Your task to perform on an android device: visit the assistant section in the google photos Image 0: 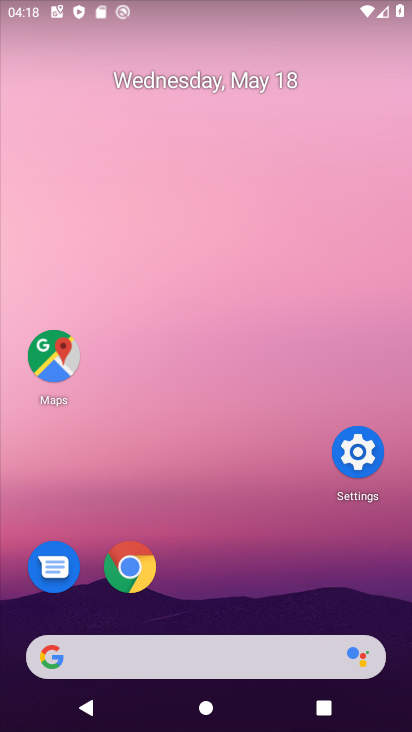
Step 0: drag from (226, 486) to (328, 76)
Your task to perform on an android device: visit the assistant section in the google photos Image 1: 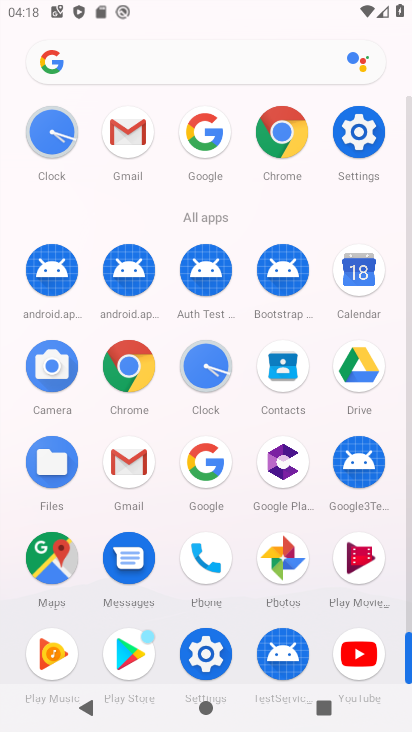
Step 1: click (274, 566)
Your task to perform on an android device: visit the assistant section in the google photos Image 2: 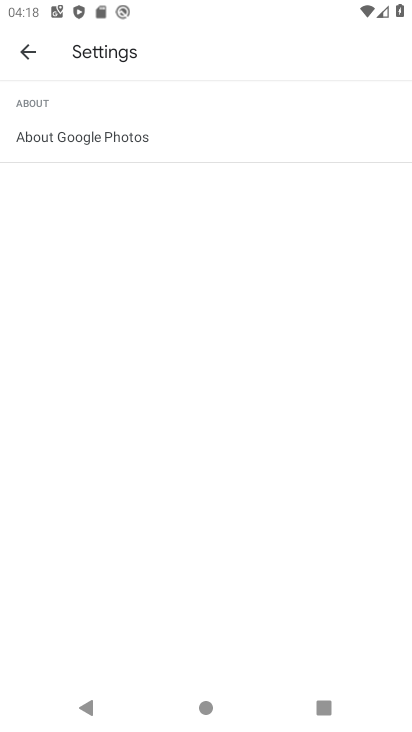
Step 2: click (30, 49)
Your task to perform on an android device: visit the assistant section in the google photos Image 3: 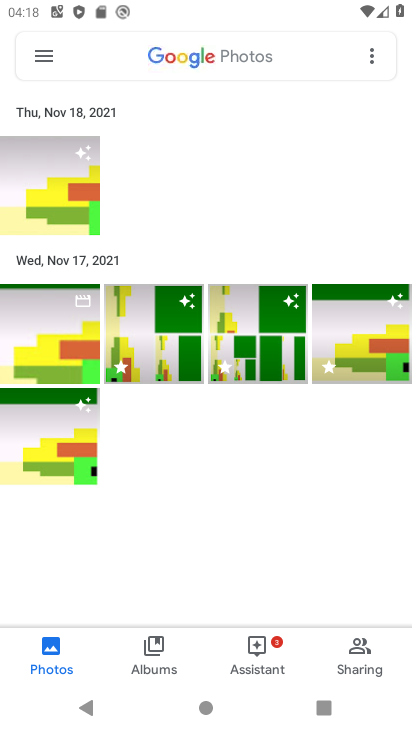
Step 3: click (257, 647)
Your task to perform on an android device: visit the assistant section in the google photos Image 4: 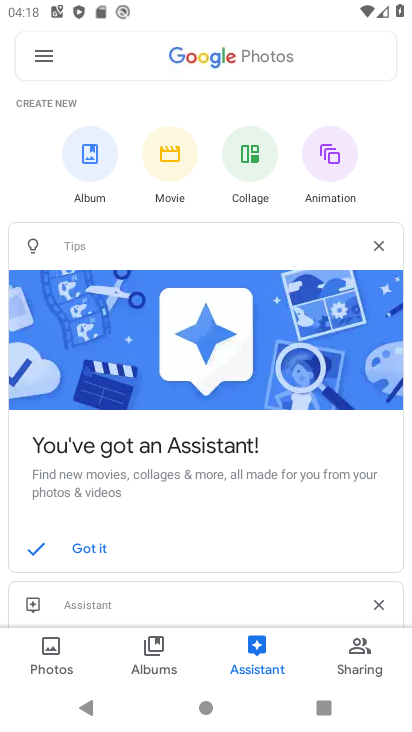
Step 4: task complete